Your task to perform on an android device: Search for pizza restaurants on Maps Image 0: 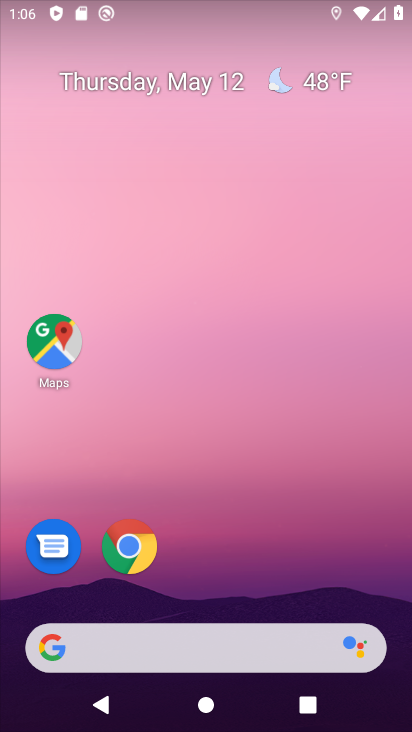
Step 0: drag from (160, 621) to (229, 196)
Your task to perform on an android device: Search for pizza restaurants on Maps Image 1: 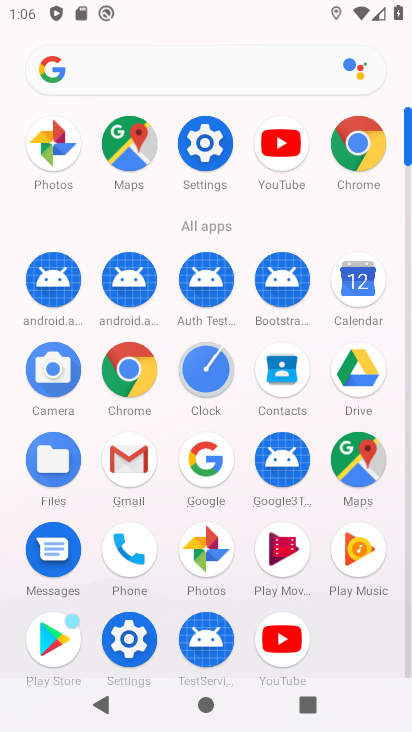
Step 1: click (132, 151)
Your task to perform on an android device: Search for pizza restaurants on Maps Image 2: 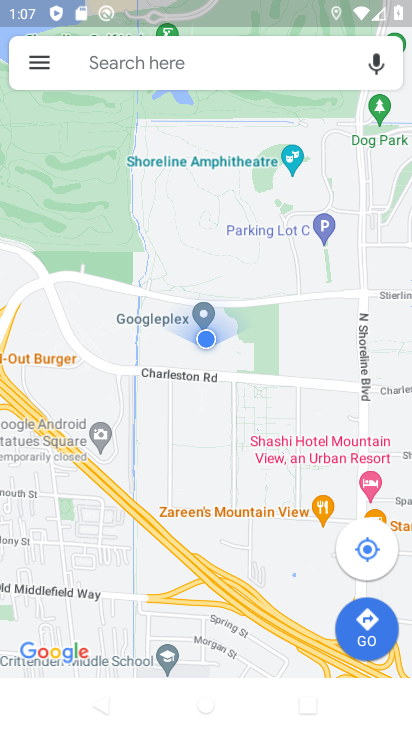
Step 2: click (168, 66)
Your task to perform on an android device: Search for pizza restaurants on Maps Image 3: 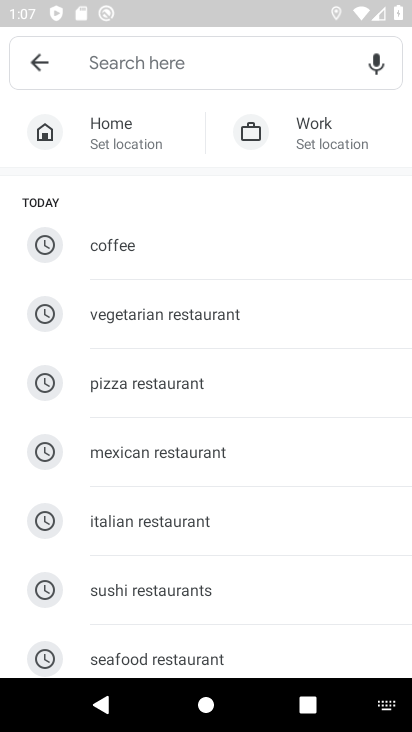
Step 3: click (150, 385)
Your task to perform on an android device: Search for pizza restaurants on Maps Image 4: 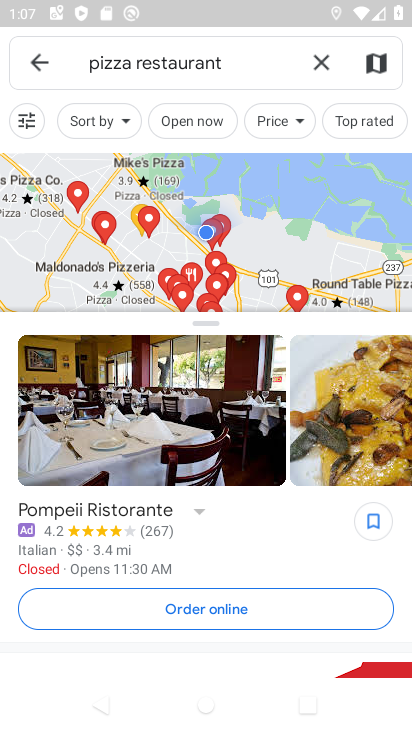
Step 4: task complete